Your task to perform on an android device: Open sound settings Image 0: 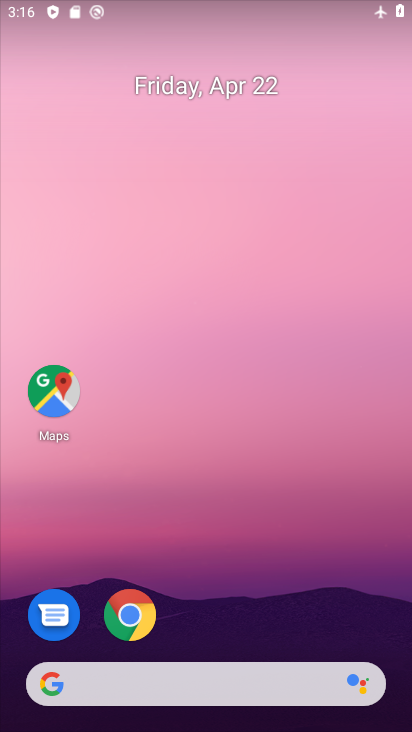
Step 0: drag from (252, 501) to (281, 254)
Your task to perform on an android device: Open sound settings Image 1: 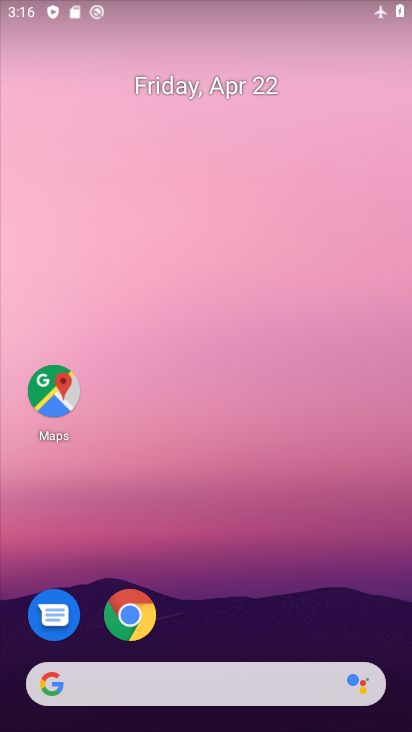
Step 1: drag from (266, 666) to (334, 193)
Your task to perform on an android device: Open sound settings Image 2: 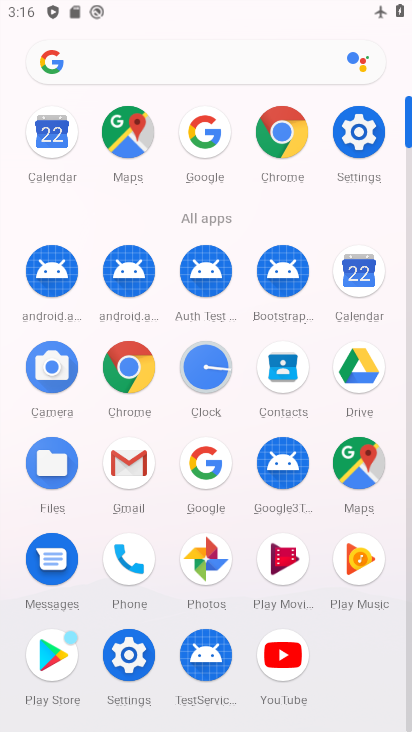
Step 2: click (361, 140)
Your task to perform on an android device: Open sound settings Image 3: 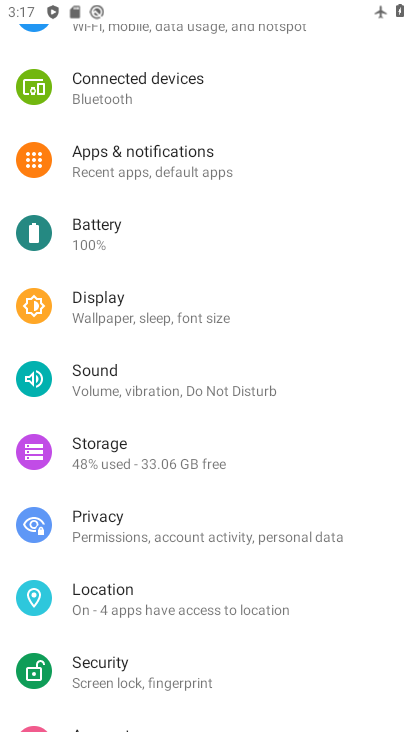
Step 3: click (121, 386)
Your task to perform on an android device: Open sound settings Image 4: 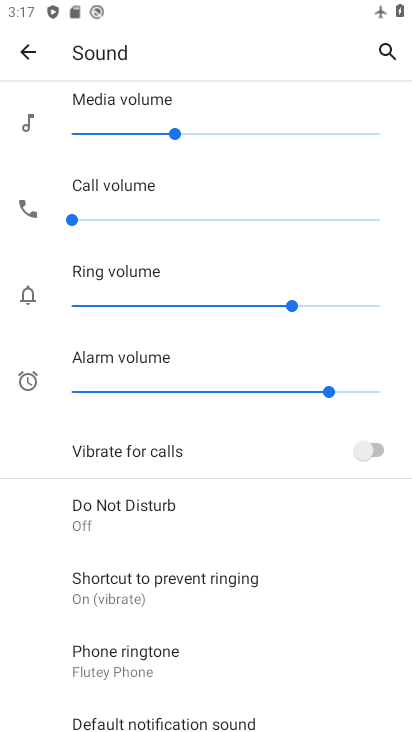
Step 4: task complete